Your task to perform on an android device: Go to ESPN.com Image 0: 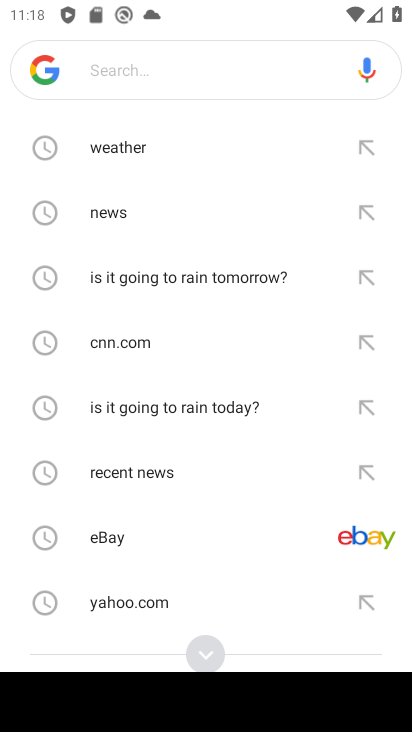
Step 0: press home button
Your task to perform on an android device: Go to ESPN.com Image 1: 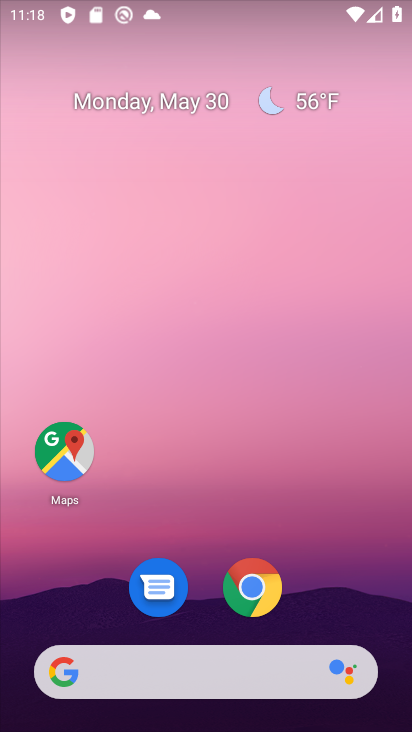
Step 1: click (249, 588)
Your task to perform on an android device: Go to ESPN.com Image 2: 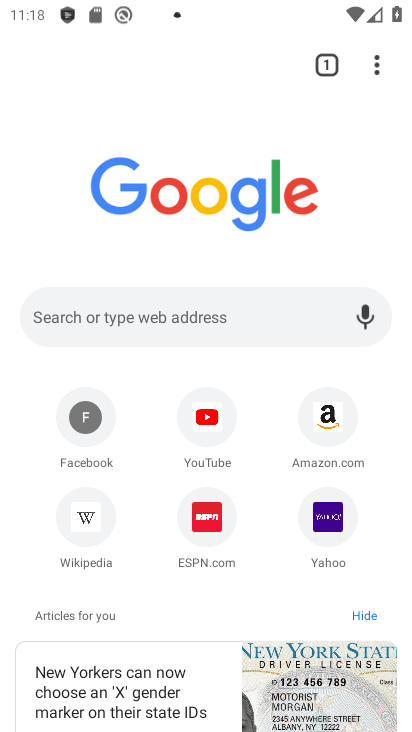
Step 2: click (189, 318)
Your task to perform on an android device: Go to ESPN.com Image 3: 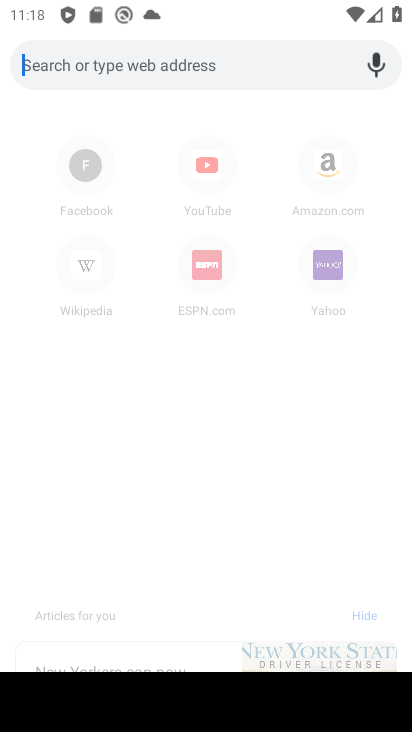
Step 3: type "ESPN.com"
Your task to perform on an android device: Go to ESPN.com Image 4: 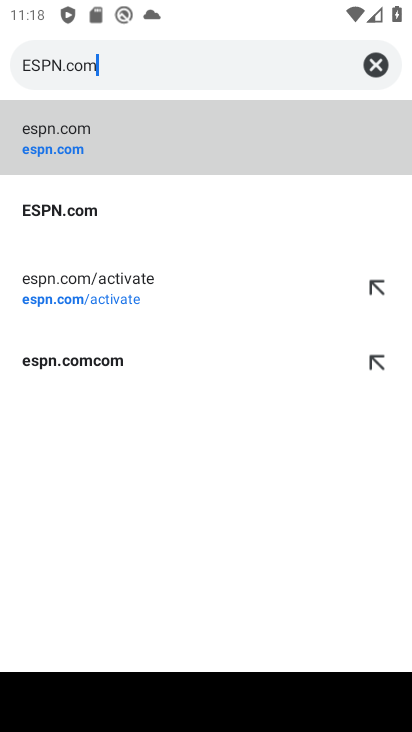
Step 4: click (48, 140)
Your task to perform on an android device: Go to ESPN.com Image 5: 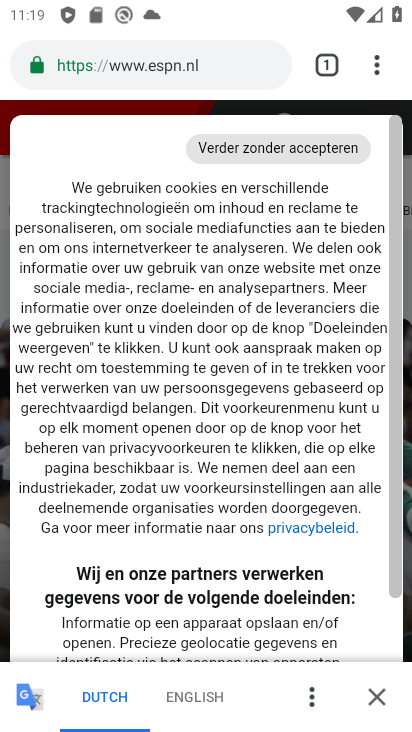
Step 5: task complete